Your task to perform on an android device: Open the calendar and show me this week's events? Image 0: 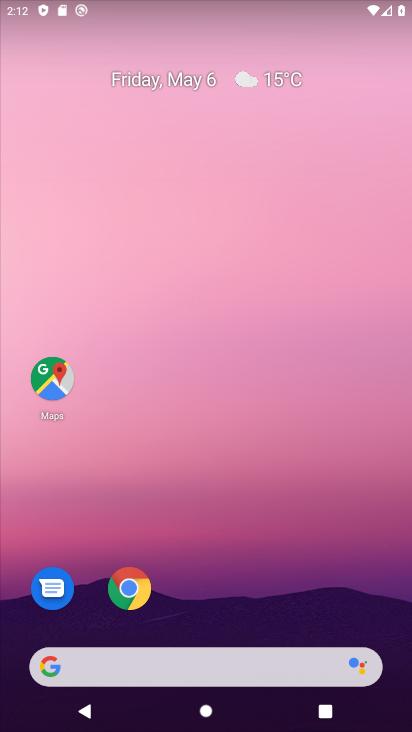
Step 0: drag from (197, 620) to (202, 31)
Your task to perform on an android device: Open the calendar and show me this week's events? Image 1: 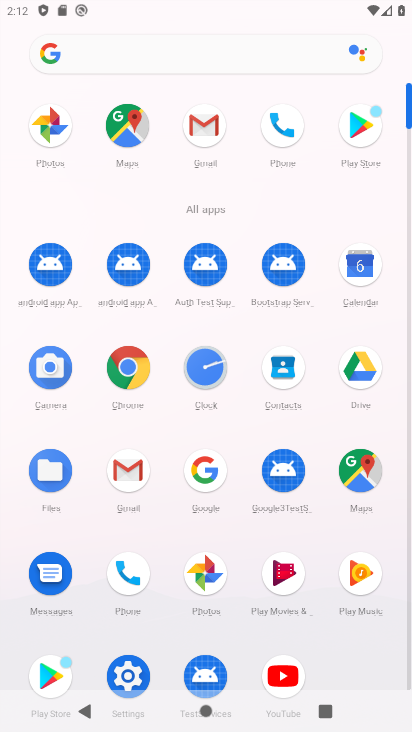
Step 1: click (357, 277)
Your task to perform on an android device: Open the calendar and show me this week's events? Image 2: 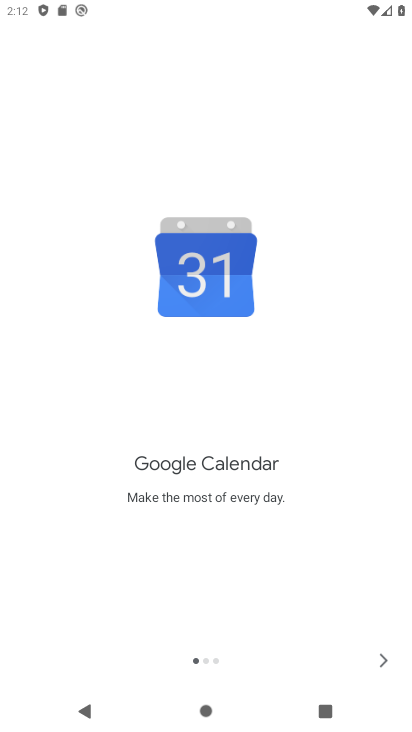
Step 2: click (385, 655)
Your task to perform on an android device: Open the calendar and show me this week's events? Image 3: 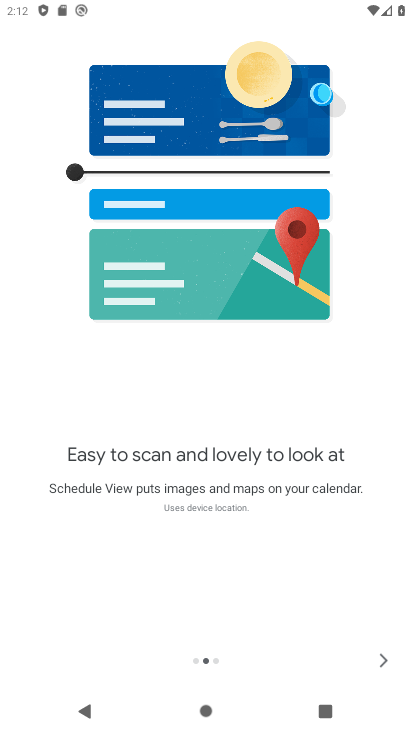
Step 3: click (385, 655)
Your task to perform on an android device: Open the calendar and show me this week's events? Image 4: 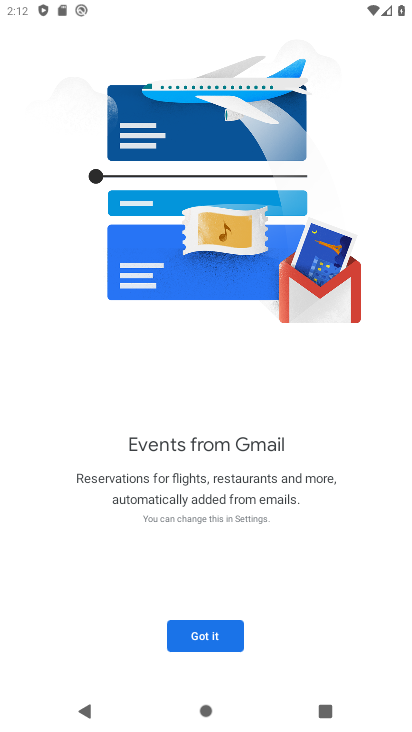
Step 4: click (230, 625)
Your task to perform on an android device: Open the calendar and show me this week's events? Image 5: 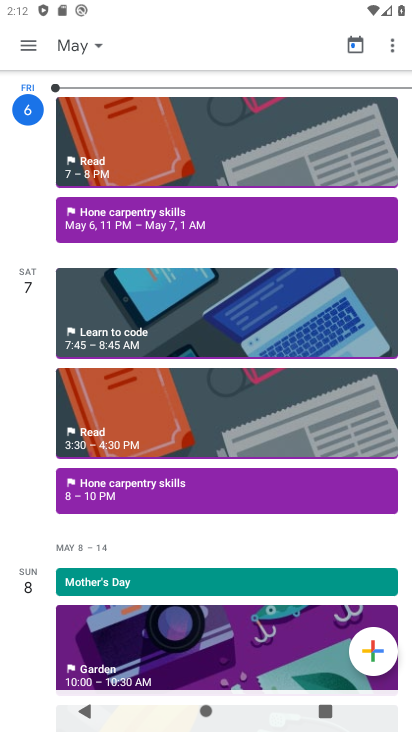
Step 5: click (33, 46)
Your task to perform on an android device: Open the calendar and show me this week's events? Image 6: 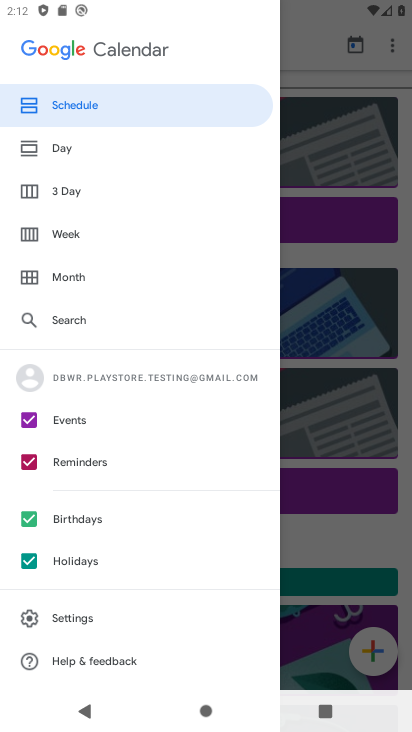
Step 6: click (64, 234)
Your task to perform on an android device: Open the calendar and show me this week's events? Image 7: 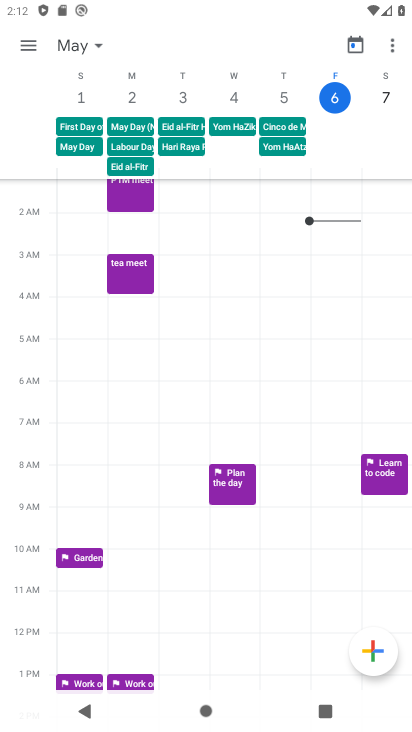
Step 7: task complete